Your task to perform on an android device: Open notification settings Image 0: 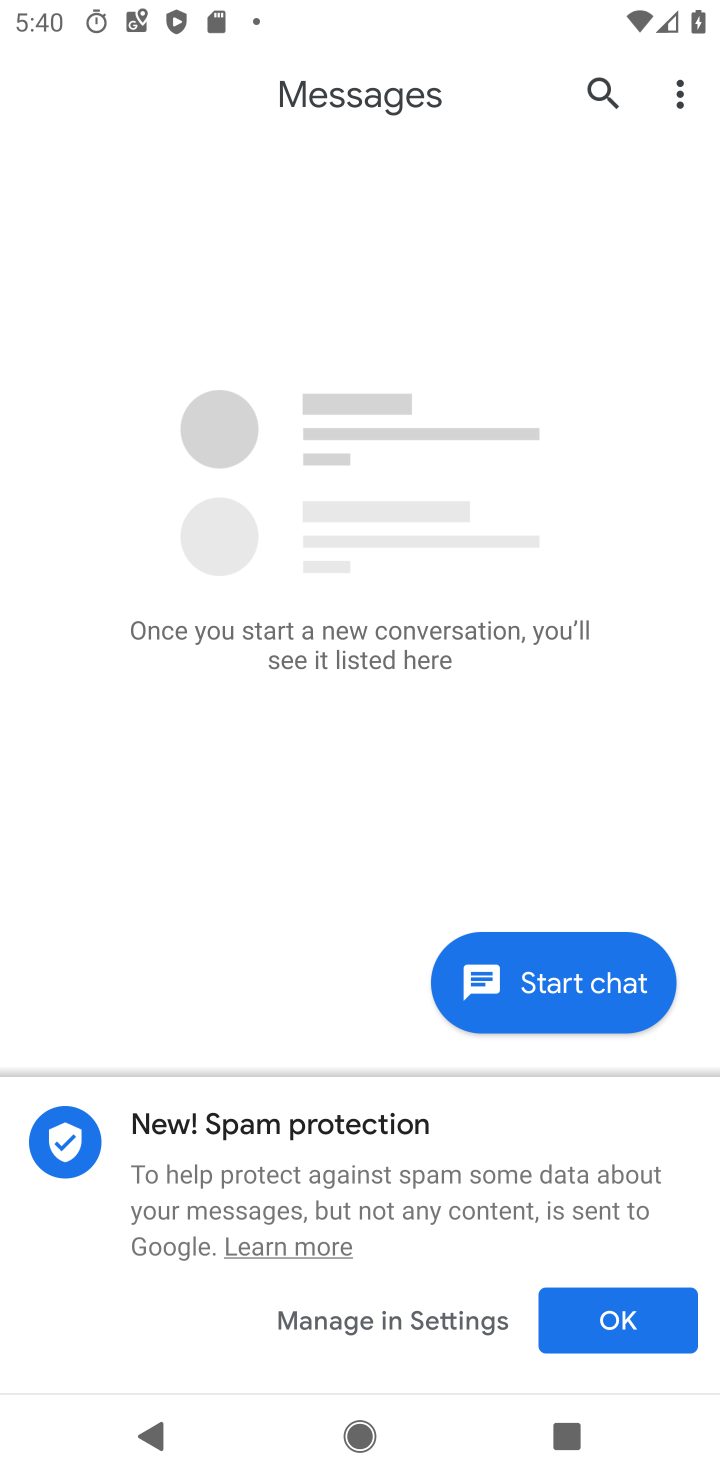
Step 0: press back button
Your task to perform on an android device: Open notification settings Image 1: 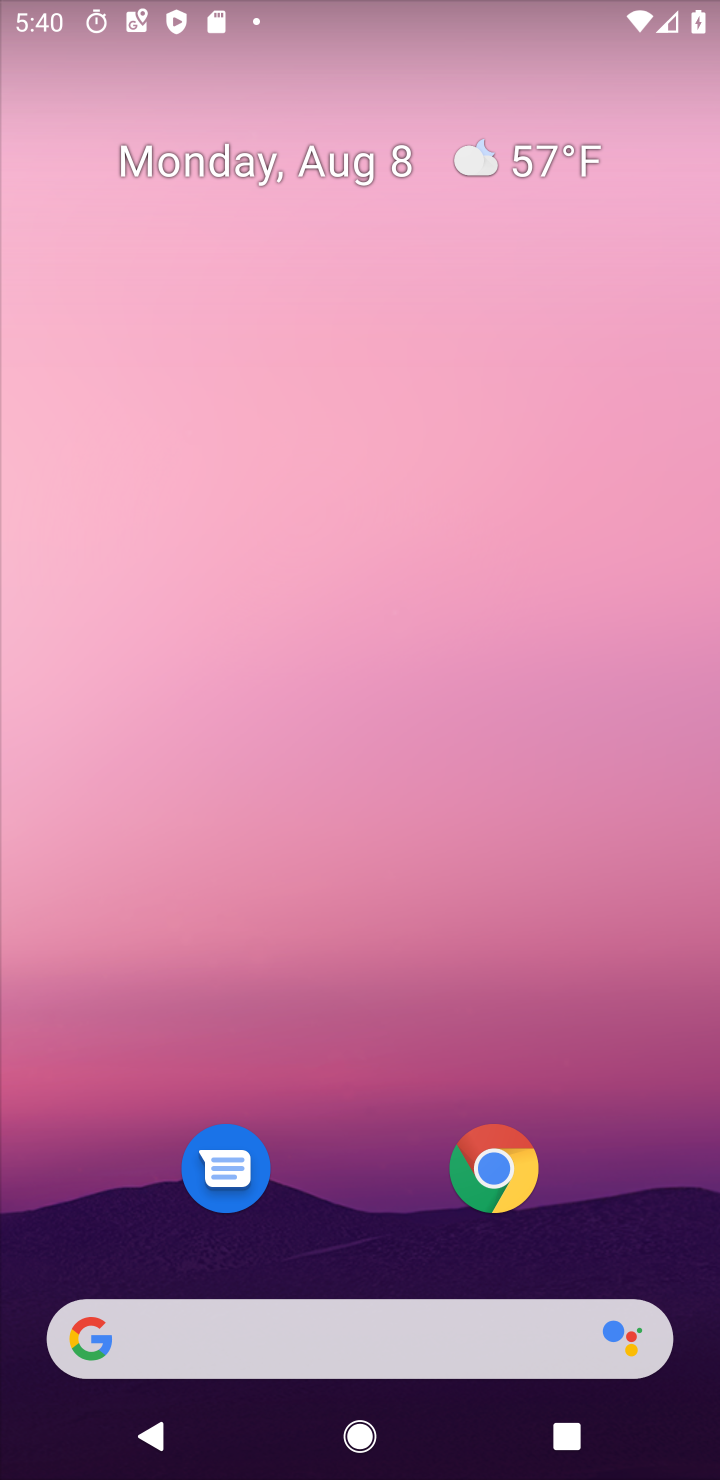
Step 1: drag from (386, 1206) to (397, 77)
Your task to perform on an android device: Open notification settings Image 2: 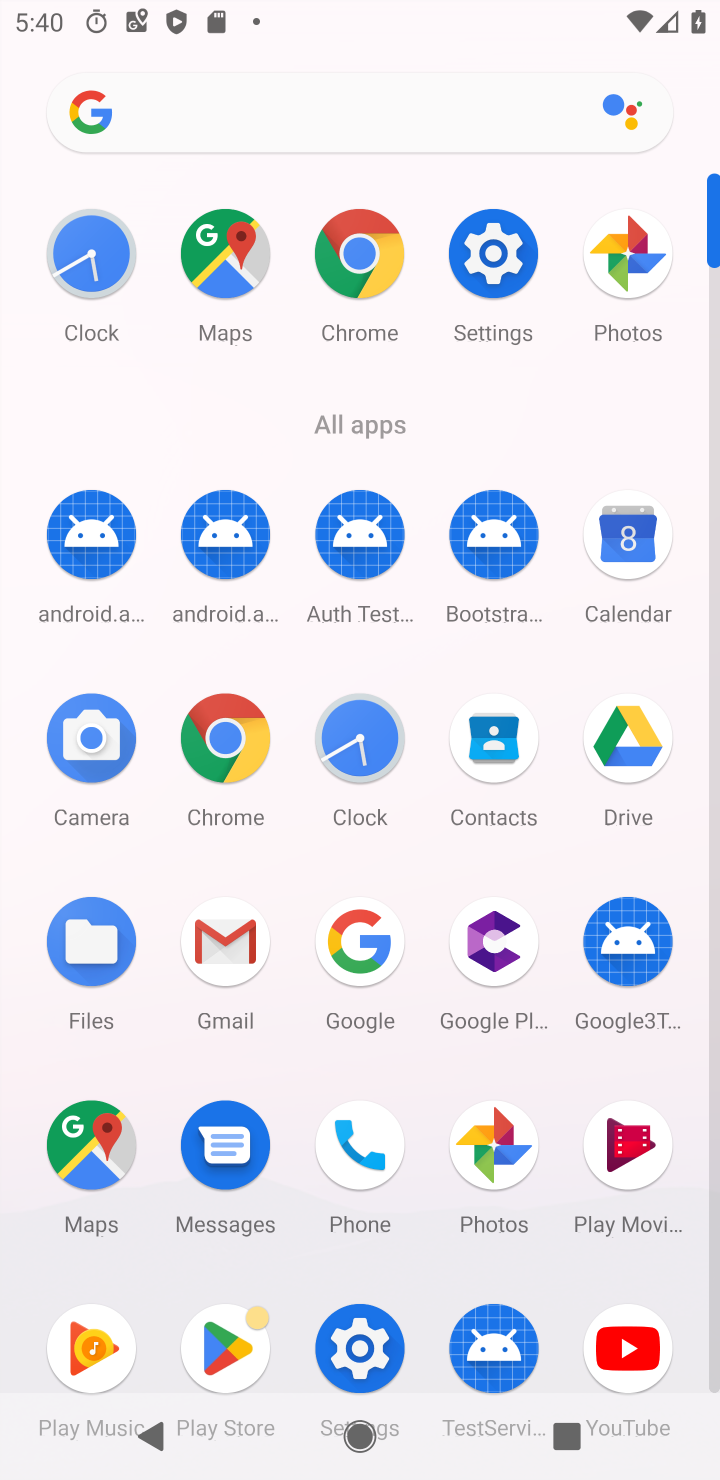
Step 2: click (487, 232)
Your task to perform on an android device: Open notification settings Image 3: 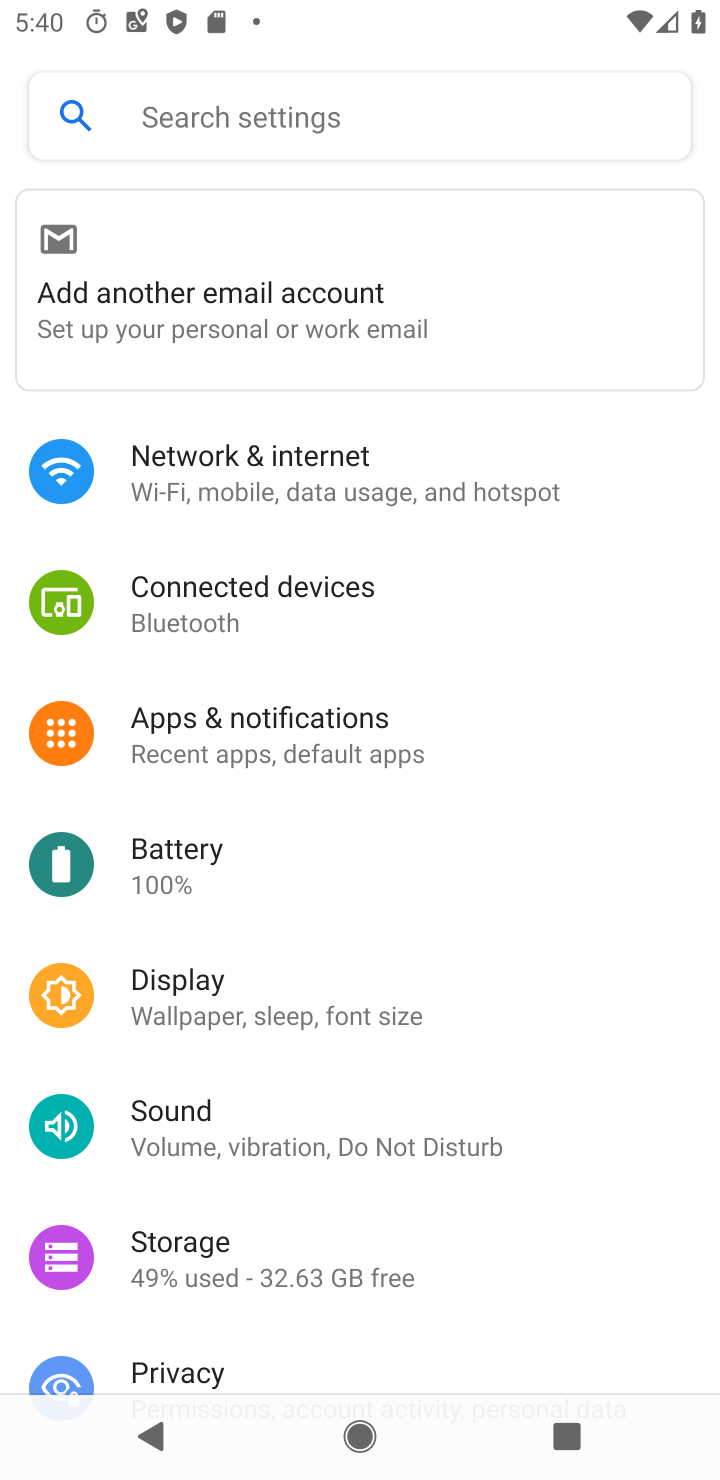
Step 3: click (283, 755)
Your task to perform on an android device: Open notification settings Image 4: 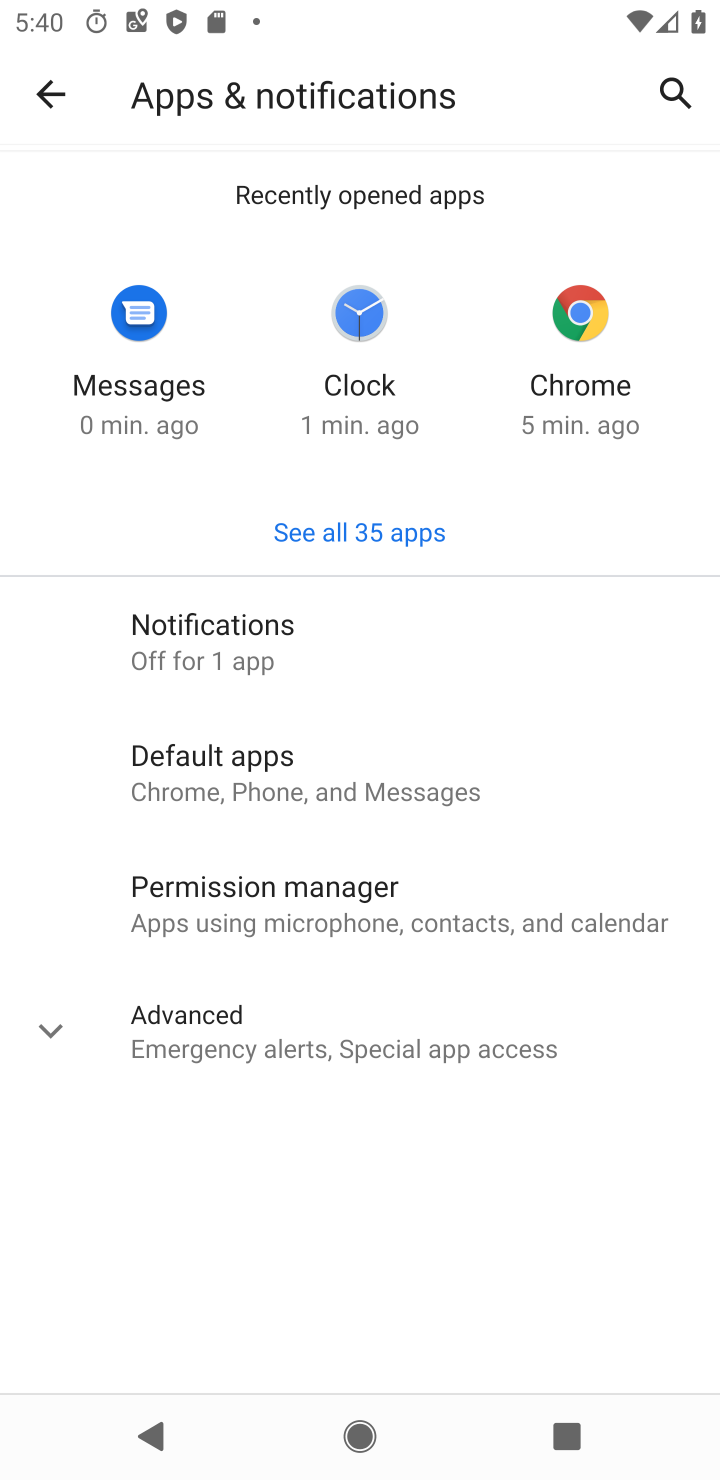
Step 4: task complete